Your task to perform on an android device: View the shopping cart on newegg. Image 0: 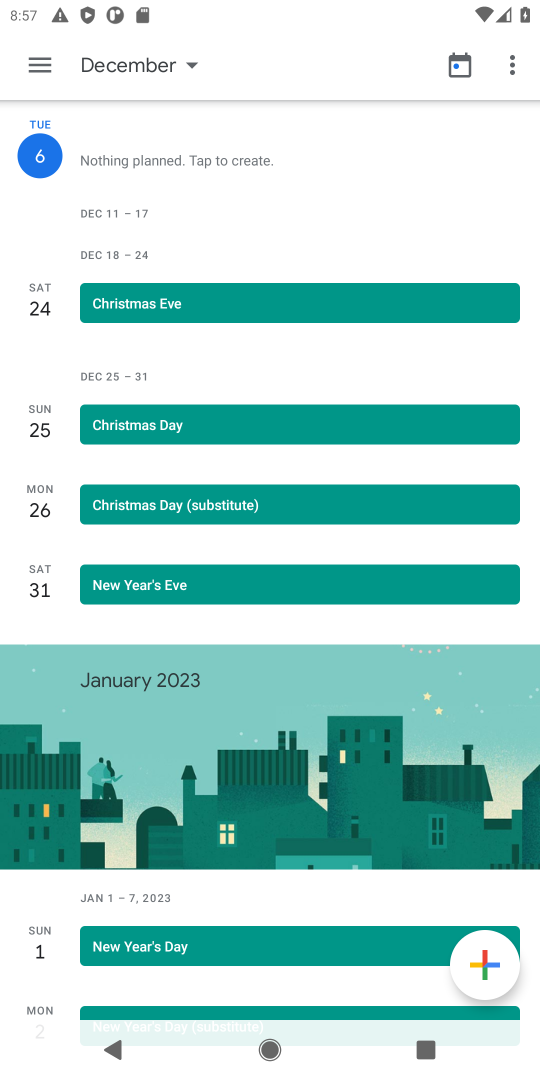
Step 0: press home button
Your task to perform on an android device: View the shopping cart on newegg. Image 1: 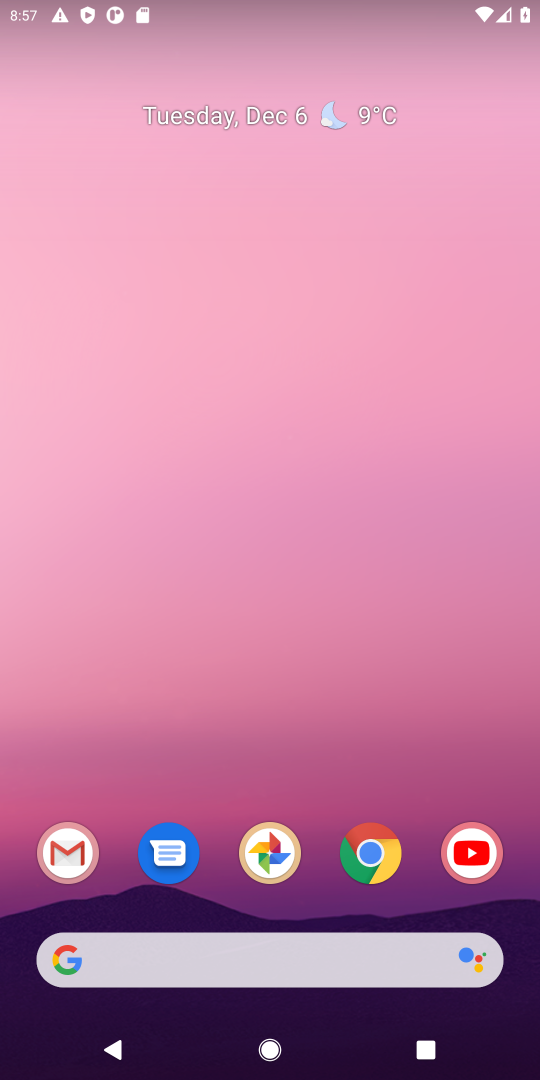
Step 1: click (365, 849)
Your task to perform on an android device: View the shopping cart on newegg. Image 2: 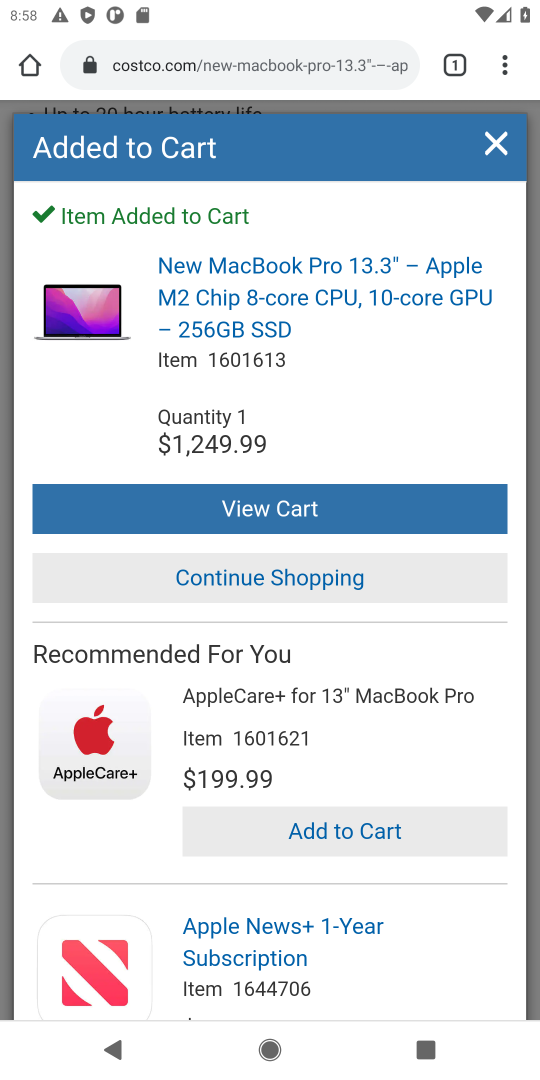
Step 2: task complete